Your task to perform on an android device: search for starred emails in the gmail app Image 0: 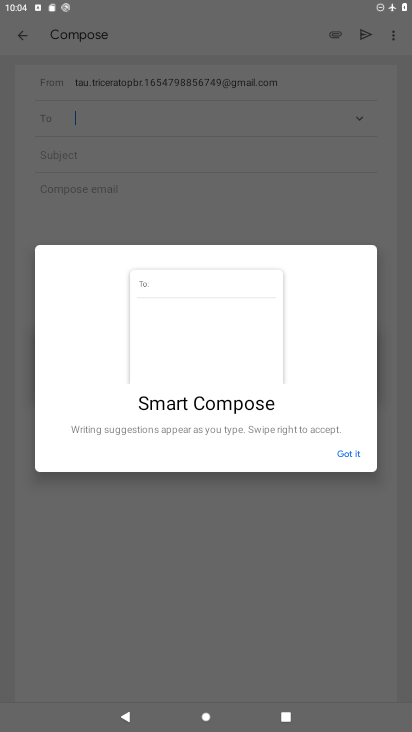
Step 0: press home button
Your task to perform on an android device: search for starred emails in the gmail app Image 1: 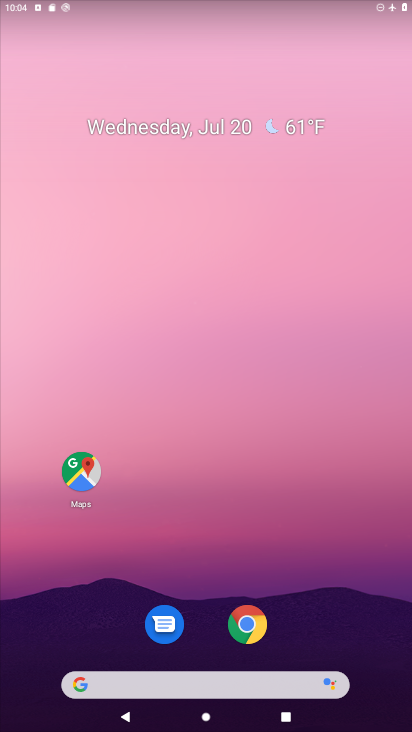
Step 1: drag from (212, 574) to (204, 154)
Your task to perform on an android device: search for starred emails in the gmail app Image 2: 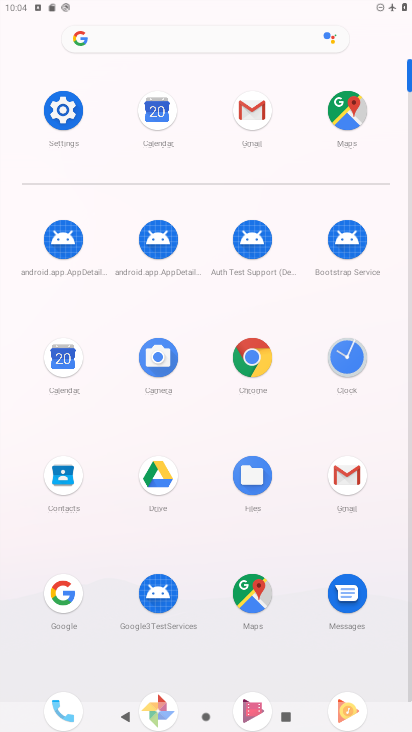
Step 2: click (251, 104)
Your task to perform on an android device: search for starred emails in the gmail app Image 3: 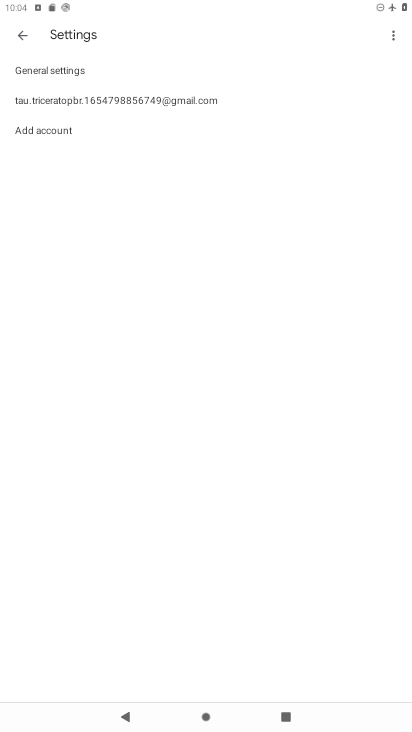
Step 3: click (29, 33)
Your task to perform on an android device: search for starred emails in the gmail app Image 4: 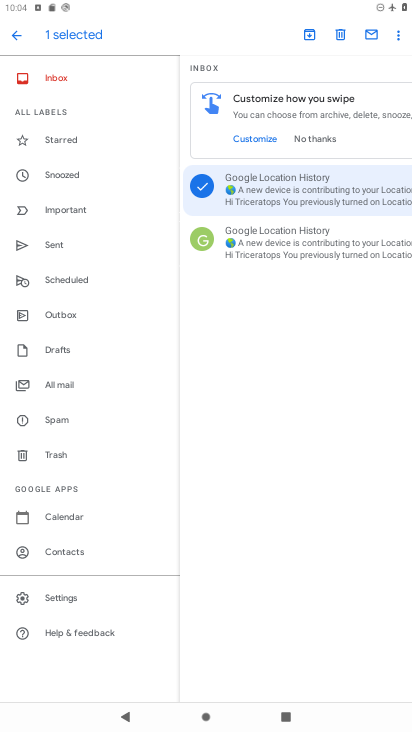
Step 4: click (90, 140)
Your task to perform on an android device: search for starred emails in the gmail app Image 5: 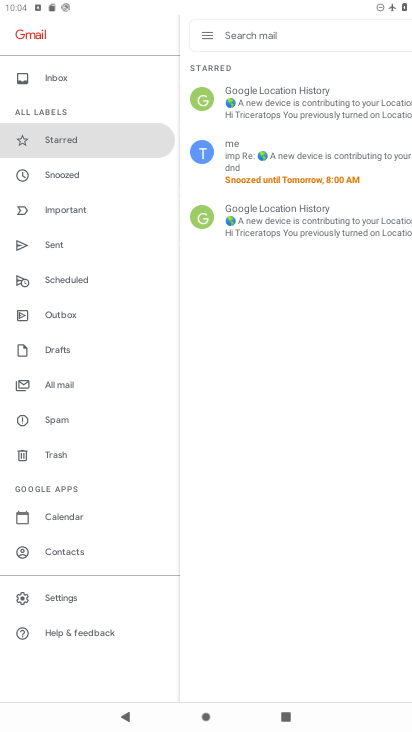
Step 5: task complete